Your task to perform on an android device: Go to Google maps Image 0: 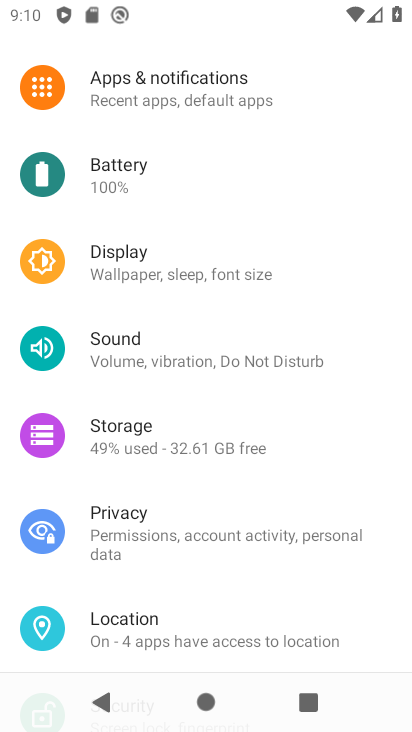
Step 0: press home button
Your task to perform on an android device: Go to Google maps Image 1: 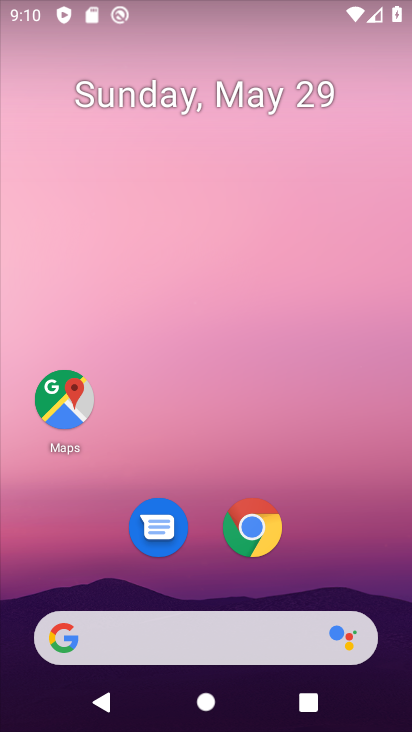
Step 1: click (54, 416)
Your task to perform on an android device: Go to Google maps Image 2: 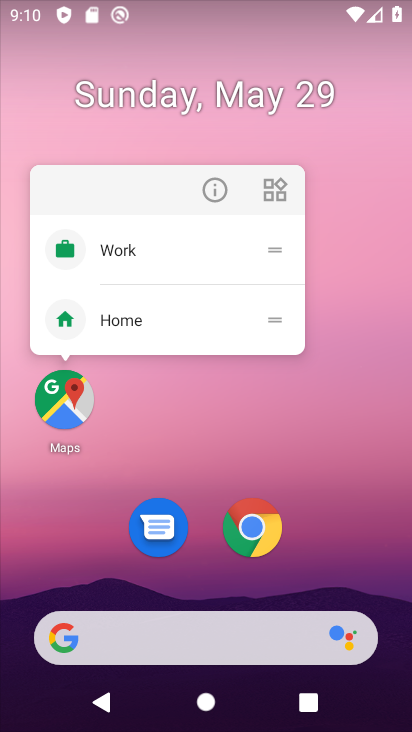
Step 2: click (61, 410)
Your task to perform on an android device: Go to Google maps Image 3: 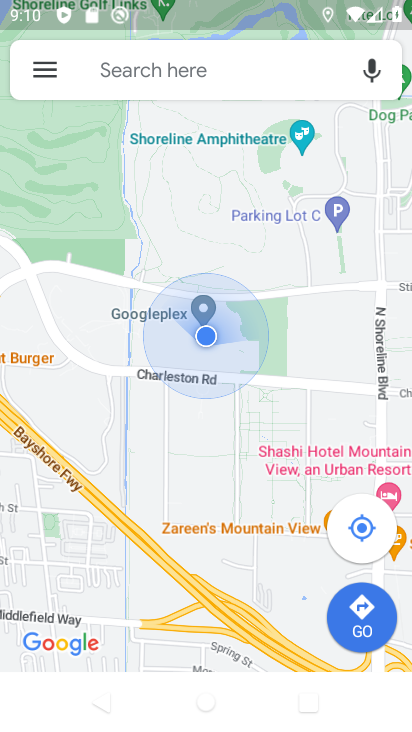
Step 3: task complete